Your task to perform on an android device: toggle wifi Image 0: 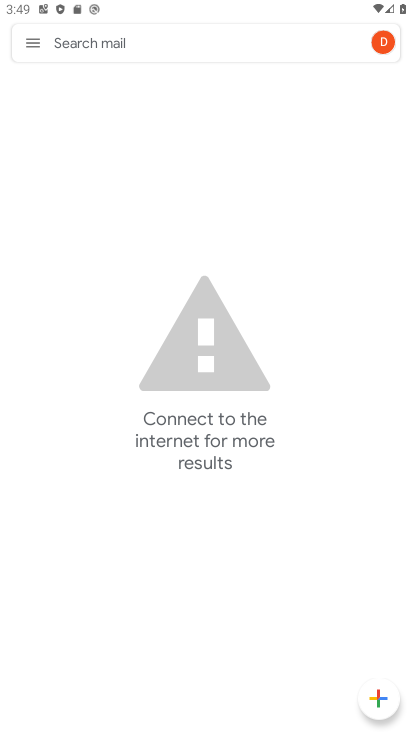
Step 0: press home button
Your task to perform on an android device: toggle wifi Image 1: 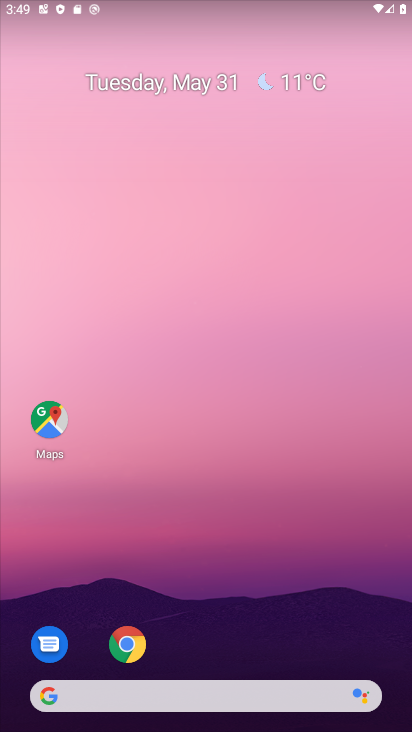
Step 1: drag from (261, 640) to (228, 244)
Your task to perform on an android device: toggle wifi Image 2: 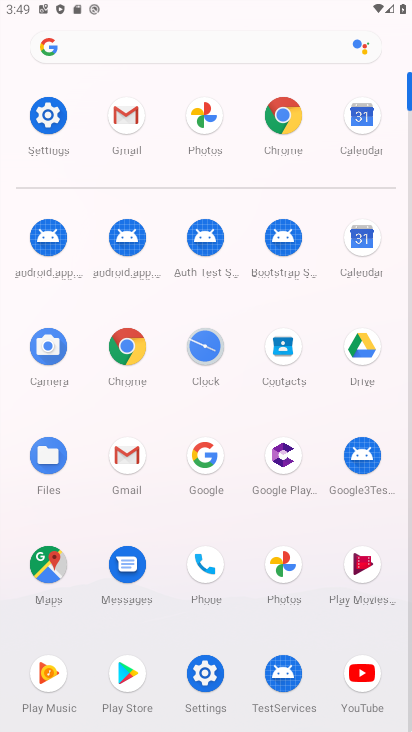
Step 2: click (46, 125)
Your task to perform on an android device: toggle wifi Image 3: 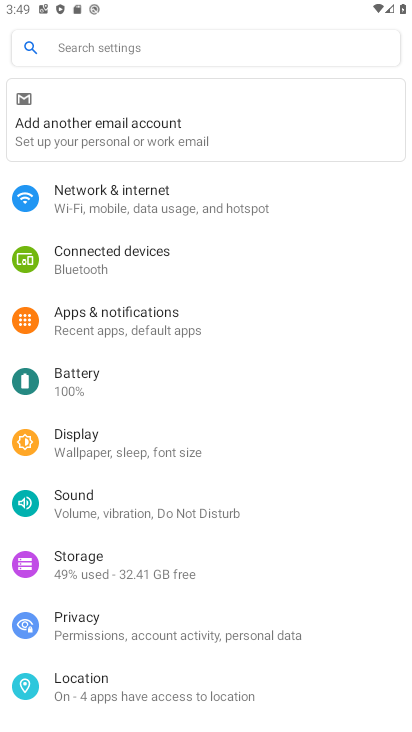
Step 3: click (176, 192)
Your task to perform on an android device: toggle wifi Image 4: 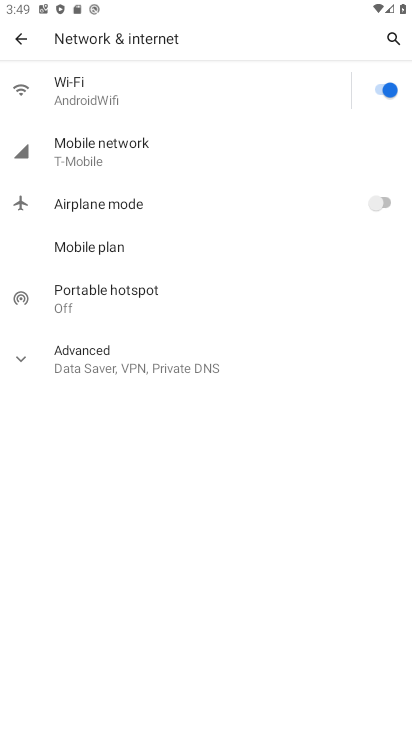
Step 4: click (378, 88)
Your task to perform on an android device: toggle wifi Image 5: 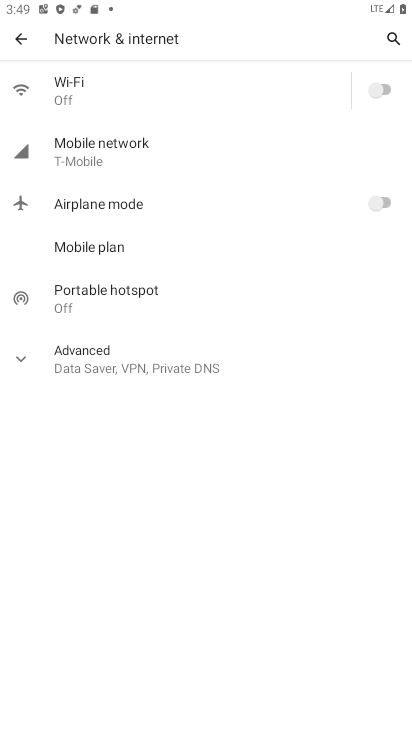
Step 5: task complete